Your task to perform on an android device: turn pop-ups off in chrome Image 0: 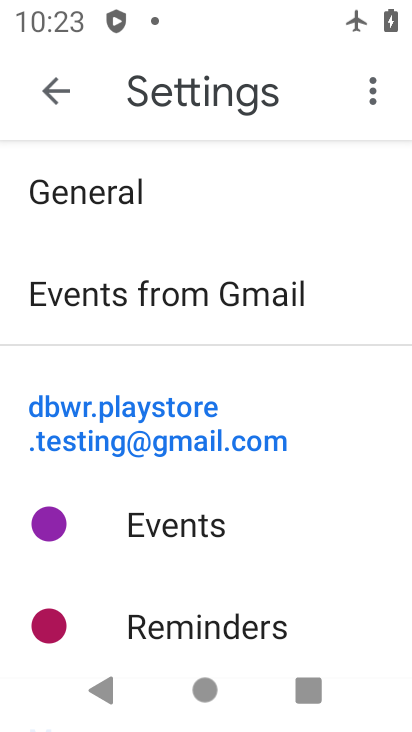
Step 0: press home button
Your task to perform on an android device: turn pop-ups off in chrome Image 1: 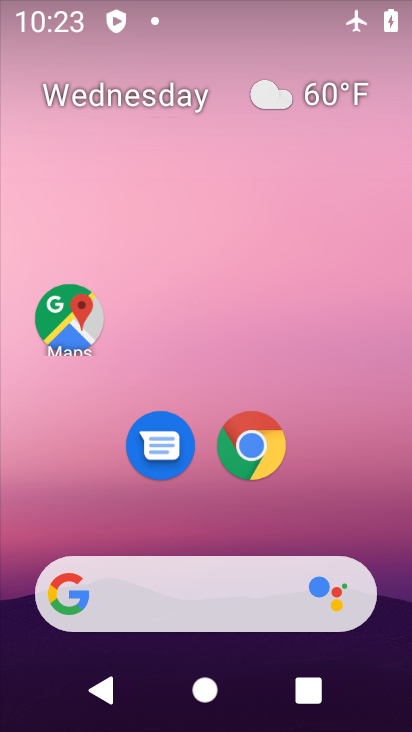
Step 1: click (245, 436)
Your task to perform on an android device: turn pop-ups off in chrome Image 2: 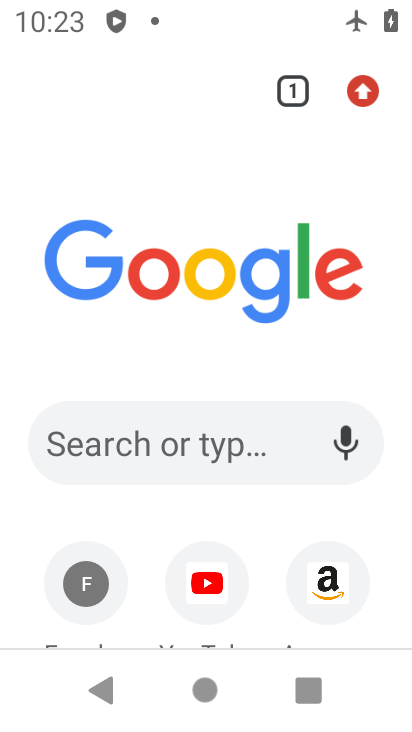
Step 2: click (367, 92)
Your task to perform on an android device: turn pop-ups off in chrome Image 3: 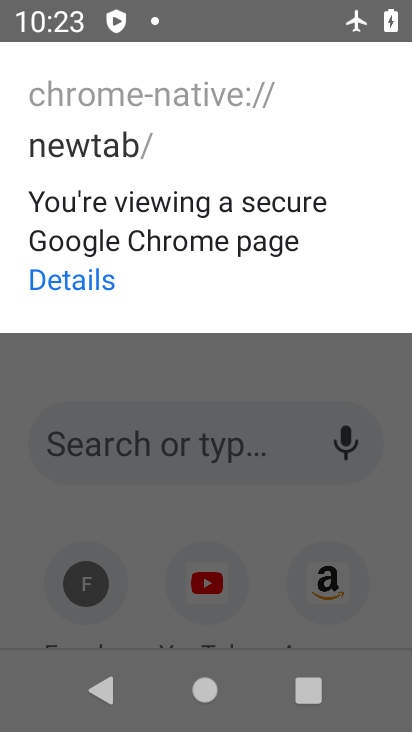
Step 3: click (302, 393)
Your task to perform on an android device: turn pop-ups off in chrome Image 4: 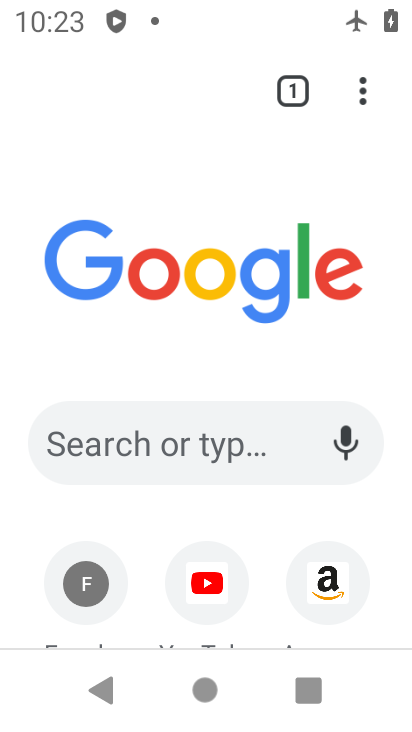
Step 4: drag from (355, 99) to (154, 483)
Your task to perform on an android device: turn pop-ups off in chrome Image 5: 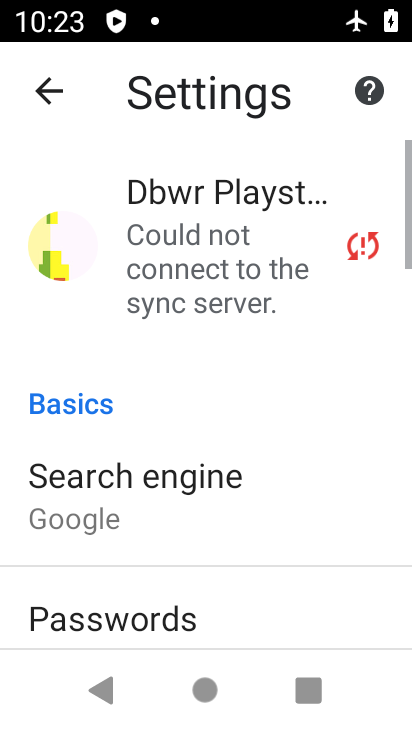
Step 5: drag from (209, 589) to (217, 188)
Your task to perform on an android device: turn pop-ups off in chrome Image 6: 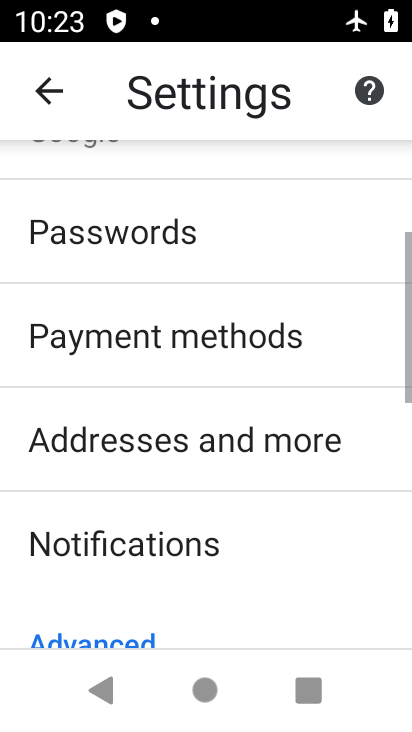
Step 6: drag from (199, 509) to (229, 235)
Your task to perform on an android device: turn pop-ups off in chrome Image 7: 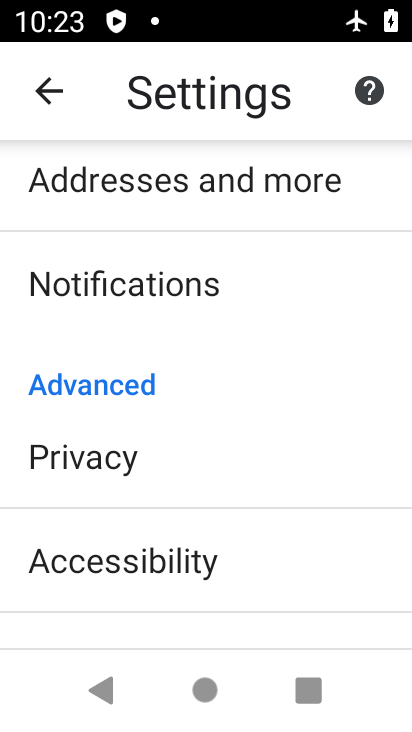
Step 7: drag from (183, 550) to (232, 301)
Your task to perform on an android device: turn pop-ups off in chrome Image 8: 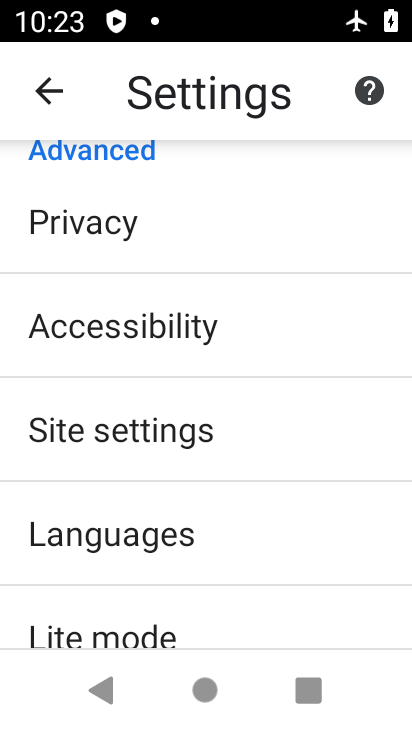
Step 8: click (173, 415)
Your task to perform on an android device: turn pop-ups off in chrome Image 9: 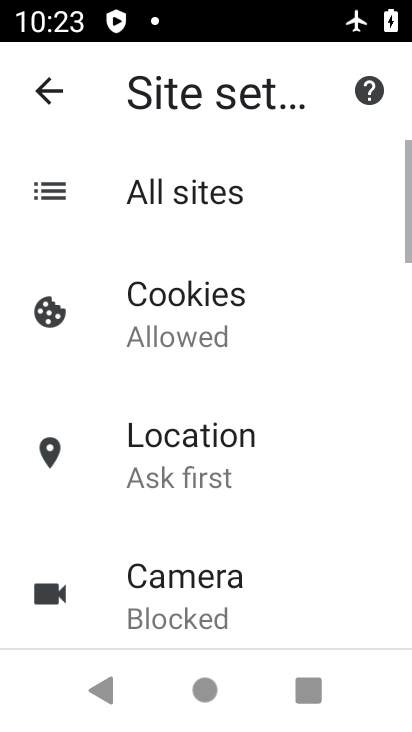
Step 9: drag from (242, 476) to (251, 211)
Your task to perform on an android device: turn pop-ups off in chrome Image 10: 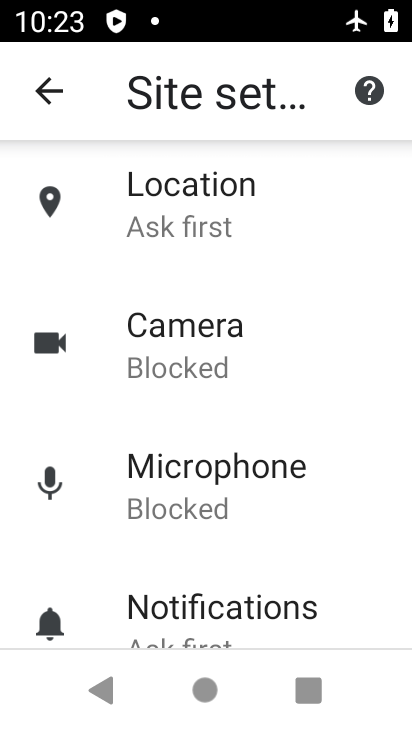
Step 10: drag from (242, 532) to (261, 280)
Your task to perform on an android device: turn pop-ups off in chrome Image 11: 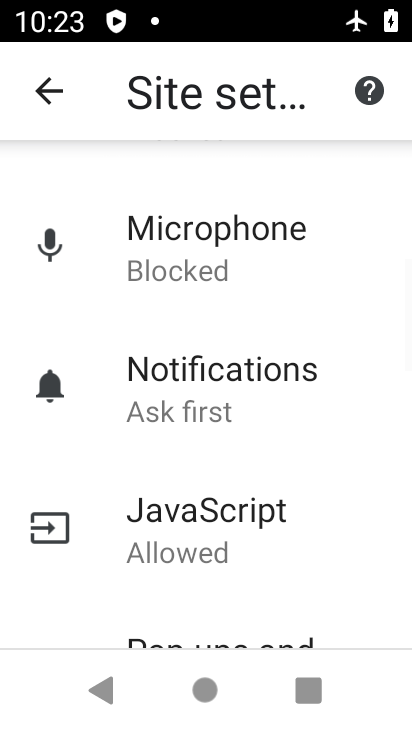
Step 11: drag from (240, 502) to (276, 300)
Your task to perform on an android device: turn pop-ups off in chrome Image 12: 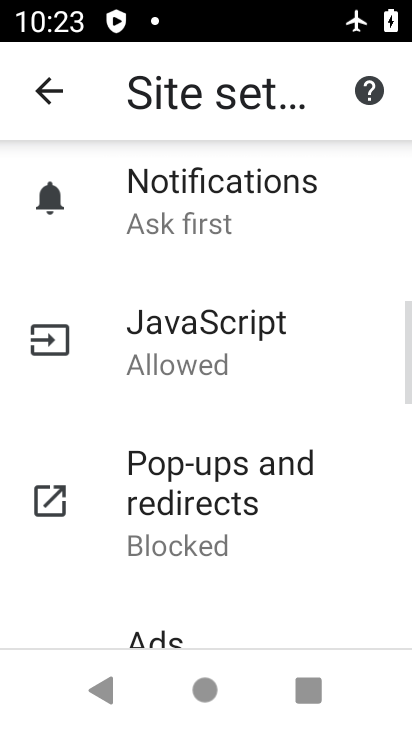
Step 12: click (235, 475)
Your task to perform on an android device: turn pop-ups off in chrome Image 13: 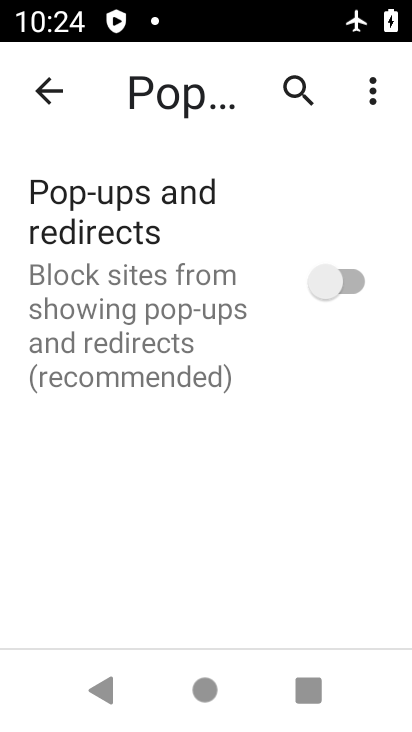
Step 13: task complete